Your task to perform on an android device: Go to accessibility settings Image 0: 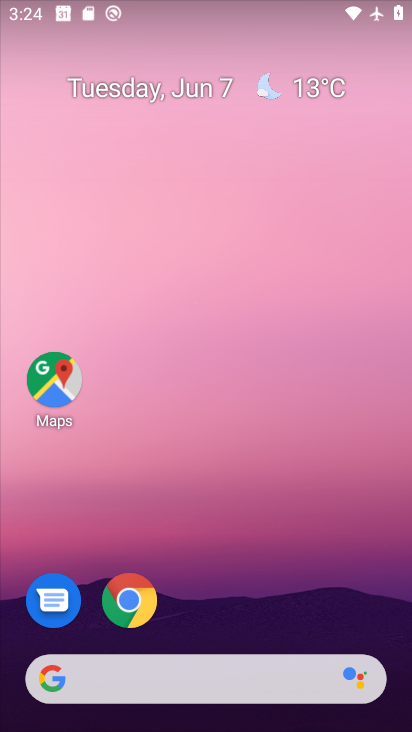
Step 0: drag from (300, 589) to (196, 131)
Your task to perform on an android device: Go to accessibility settings Image 1: 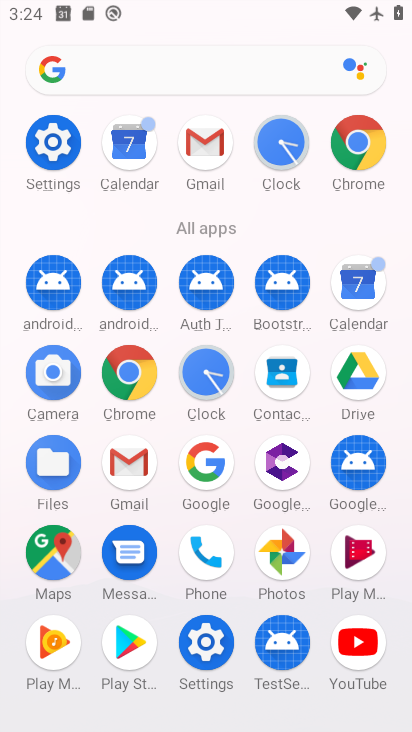
Step 1: click (53, 144)
Your task to perform on an android device: Go to accessibility settings Image 2: 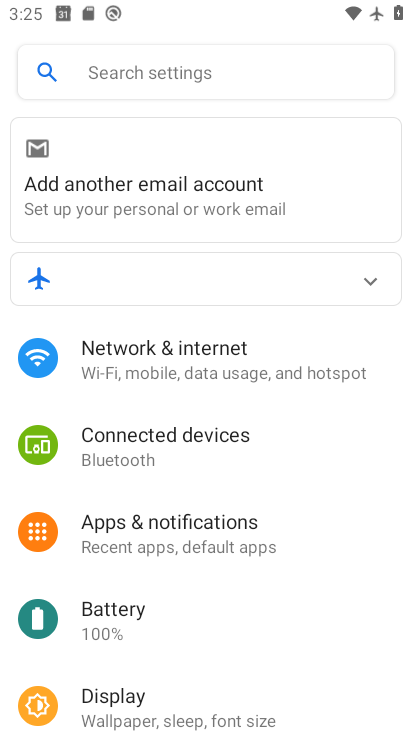
Step 2: drag from (333, 564) to (250, 0)
Your task to perform on an android device: Go to accessibility settings Image 3: 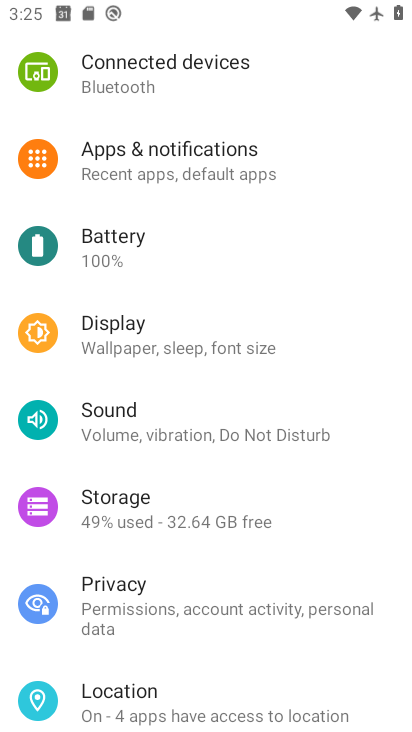
Step 3: drag from (251, 589) to (191, 3)
Your task to perform on an android device: Go to accessibility settings Image 4: 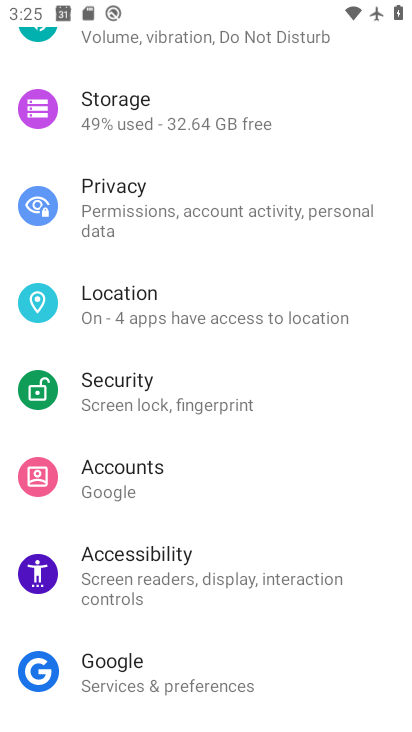
Step 4: click (146, 561)
Your task to perform on an android device: Go to accessibility settings Image 5: 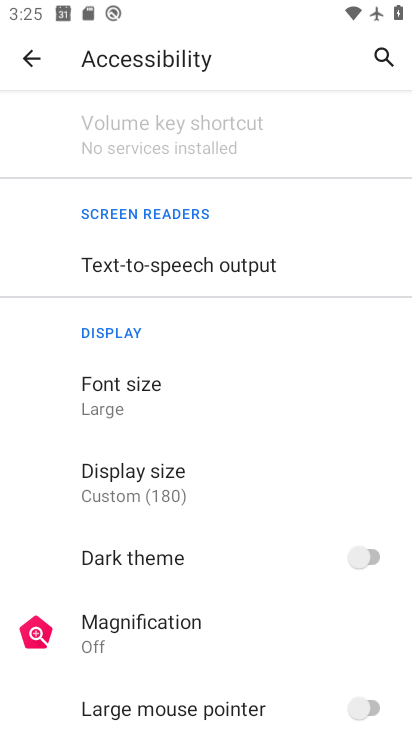
Step 5: task complete